Your task to perform on an android device: check battery use Image 0: 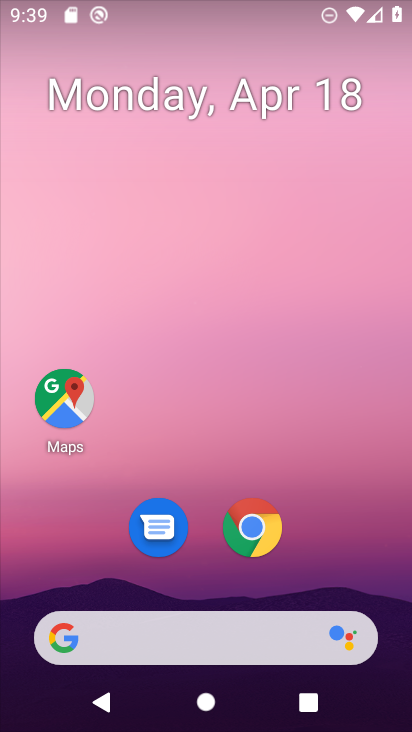
Step 0: drag from (403, 669) to (247, 10)
Your task to perform on an android device: check battery use Image 1: 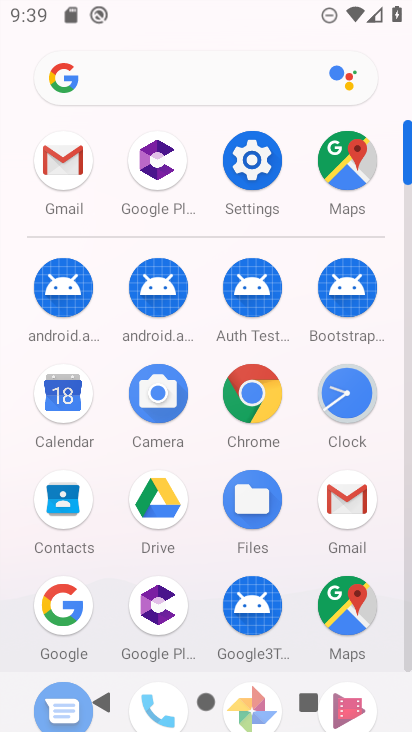
Step 1: click (251, 154)
Your task to perform on an android device: check battery use Image 2: 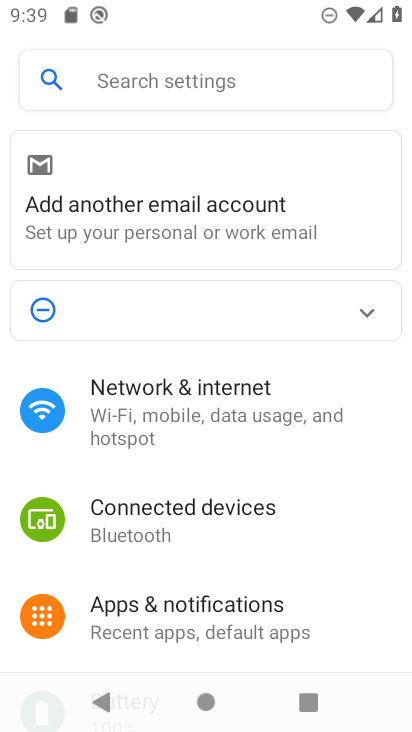
Step 2: click (272, 388)
Your task to perform on an android device: check battery use Image 3: 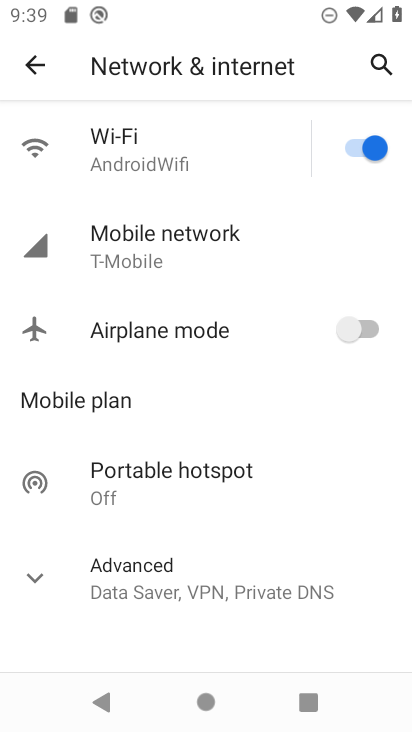
Step 3: click (35, 69)
Your task to perform on an android device: check battery use Image 4: 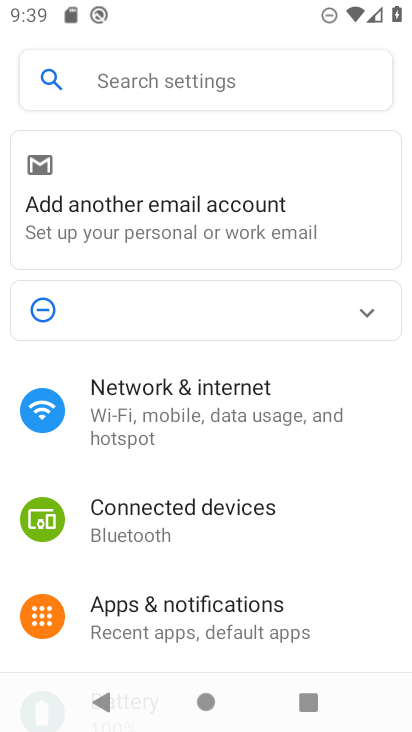
Step 4: drag from (224, 545) to (197, 177)
Your task to perform on an android device: check battery use Image 5: 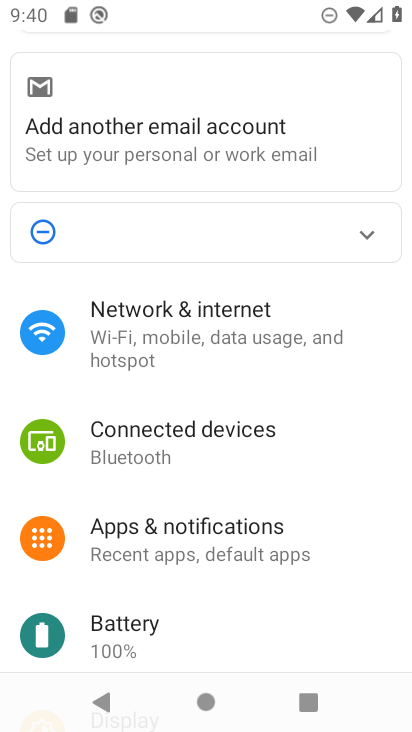
Step 5: drag from (208, 607) to (201, 221)
Your task to perform on an android device: check battery use Image 6: 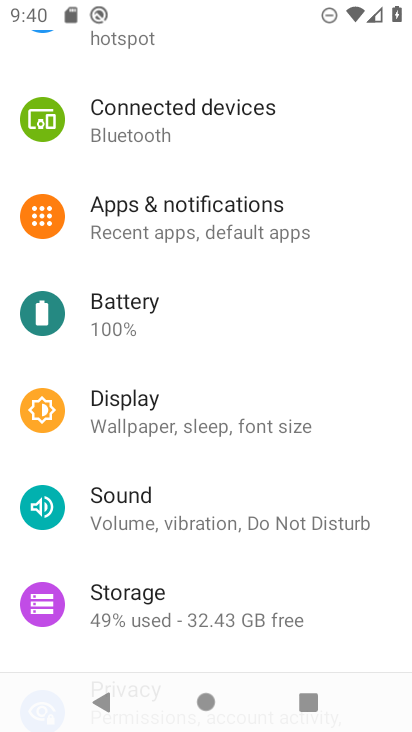
Step 6: click (180, 321)
Your task to perform on an android device: check battery use Image 7: 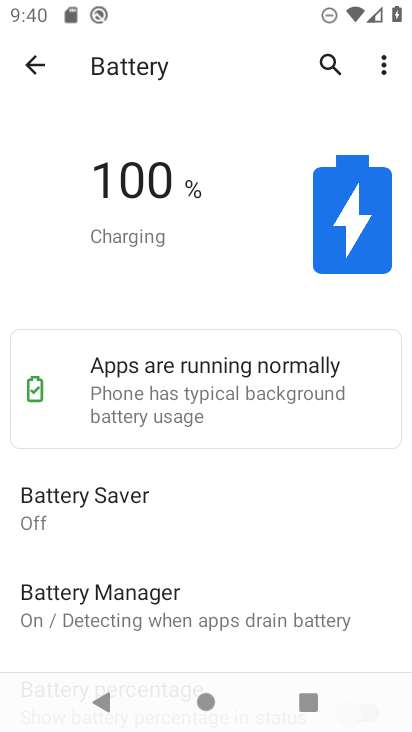
Step 7: task complete